Your task to perform on an android device: read, delete, or share a saved page in the chrome app Image 0: 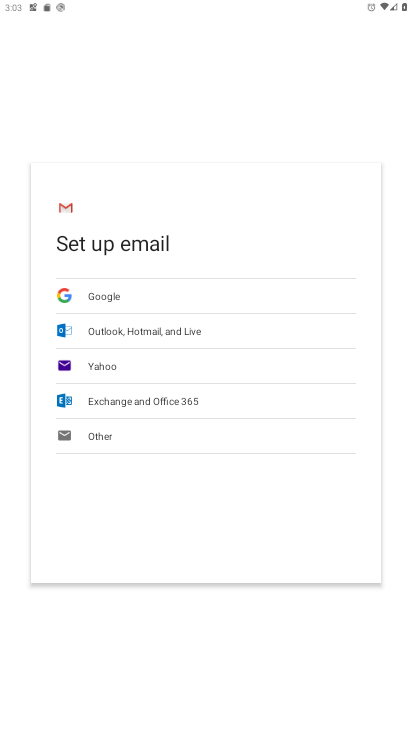
Step 0: press home button
Your task to perform on an android device: read, delete, or share a saved page in the chrome app Image 1: 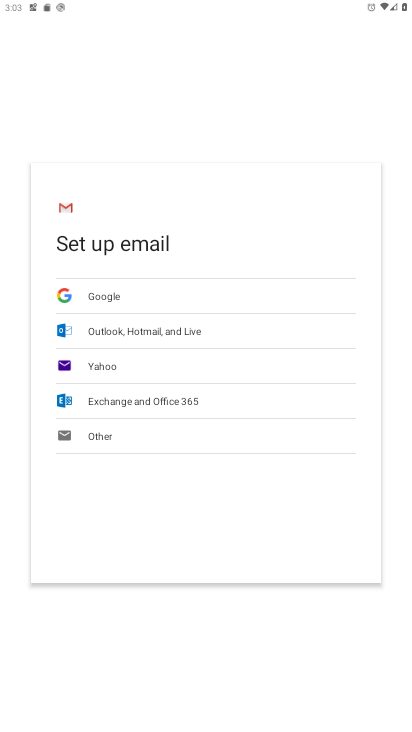
Step 1: press home button
Your task to perform on an android device: read, delete, or share a saved page in the chrome app Image 2: 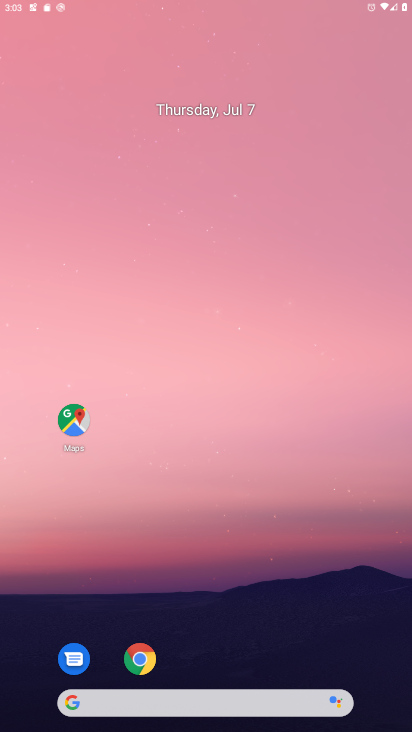
Step 2: press home button
Your task to perform on an android device: read, delete, or share a saved page in the chrome app Image 3: 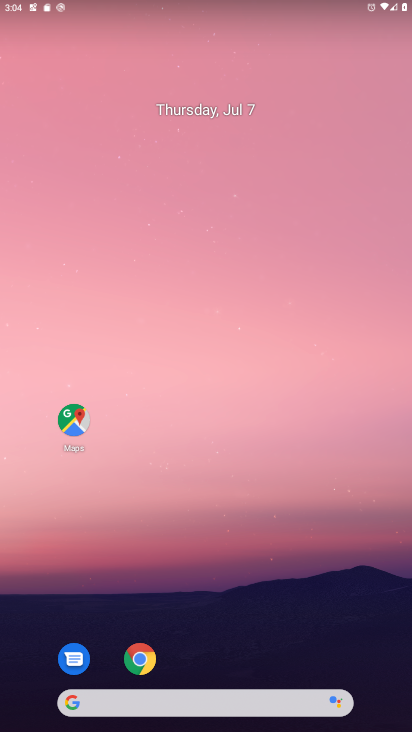
Step 3: drag from (183, 685) to (275, 118)
Your task to perform on an android device: read, delete, or share a saved page in the chrome app Image 4: 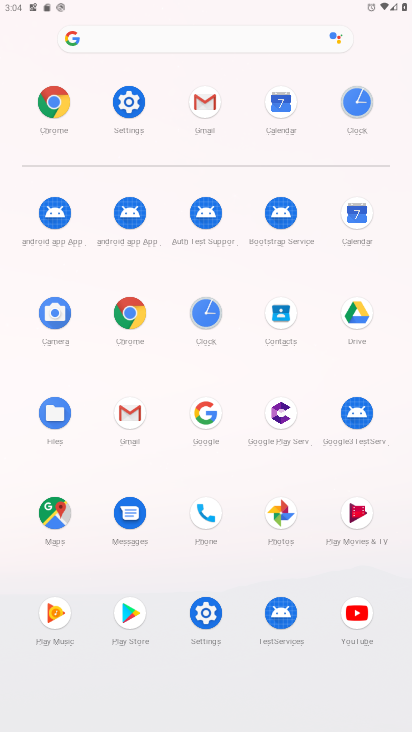
Step 4: click (127, 313)
Your task to perform on an android device: read, delete, or share a saved page in the chrome app Image 5: 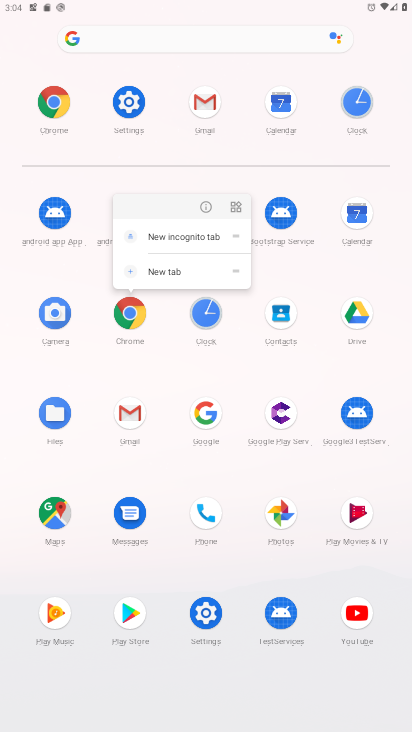
Step 5: click (205, 209)
Your task to perform on an android device: read, delete, or share a saved page in the chrome app Image 6: 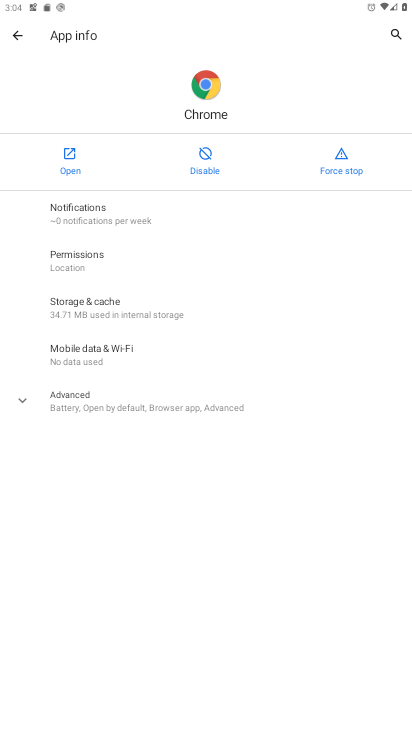
Step 6: click (68, 168)
Your task to perform on an android device: read, delete, or share a saved page in the chrome app Image 7: 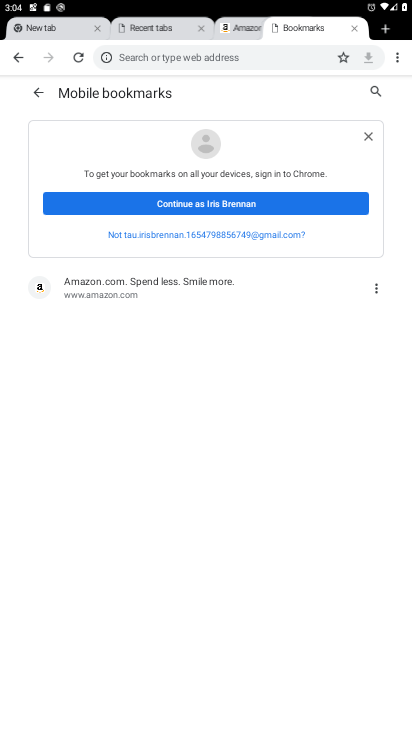
Step 7: click (395, 64)
Your task to perform on an android device: read, delete, or share a saved page in the chrome app Image 8: 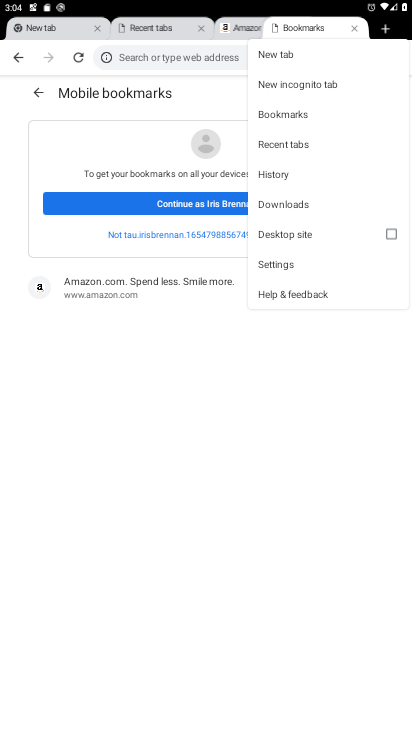
Step 8: click (297, 118)
Your task to perform on an android device: read, delete, or share a saved page in the chrome app Image 9: 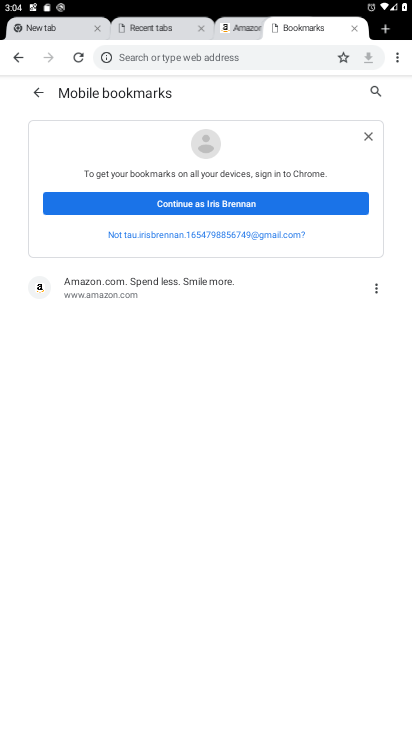
Step 9: task complete